Your task to perform on an android device: Open internet settings Image 0: 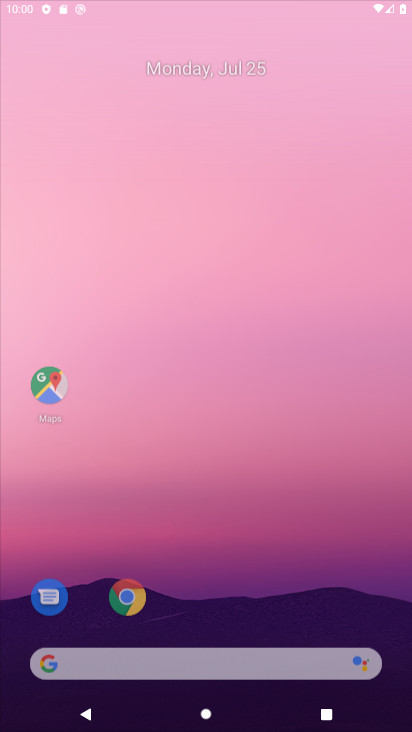
Step 0: drag from (195, 631) to (226, 0)
Your task to perform on an android device: Open internet settings Image 1: 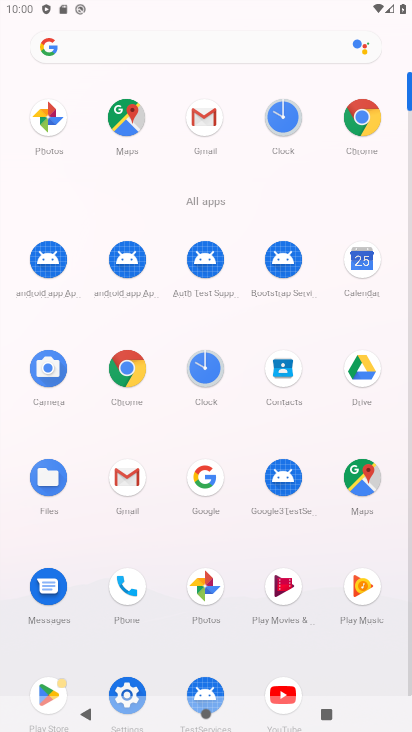
Step 1: click (135, 677)
Your task to perform on an android device: Open internet settings Image 2: 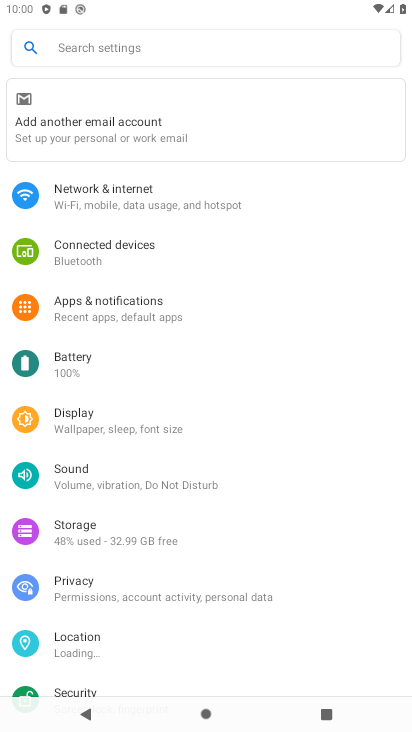
Step 2: click (104, 189)
Your task to perform on an android device: Open internet settings Image 3: 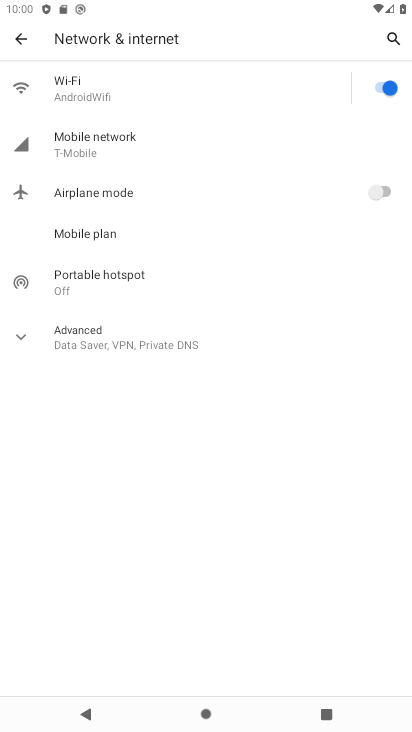
Step 3: click (111, 148)
Your task to perform on an android device: Open internet settings Image 4: 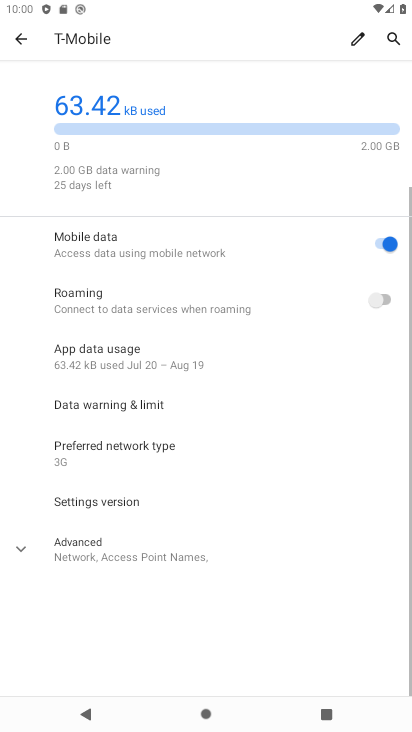
Step 4: task complete